Your task to perform on an android device: Open maps Image 0: 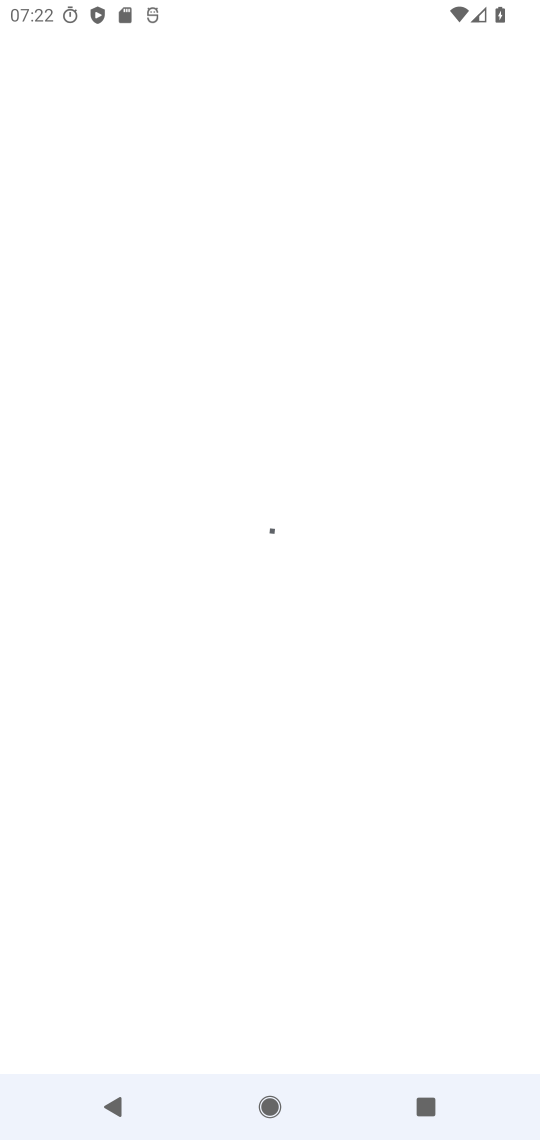
Step 0: press home button
Your task to perform on an android device: Open maps Image 1: 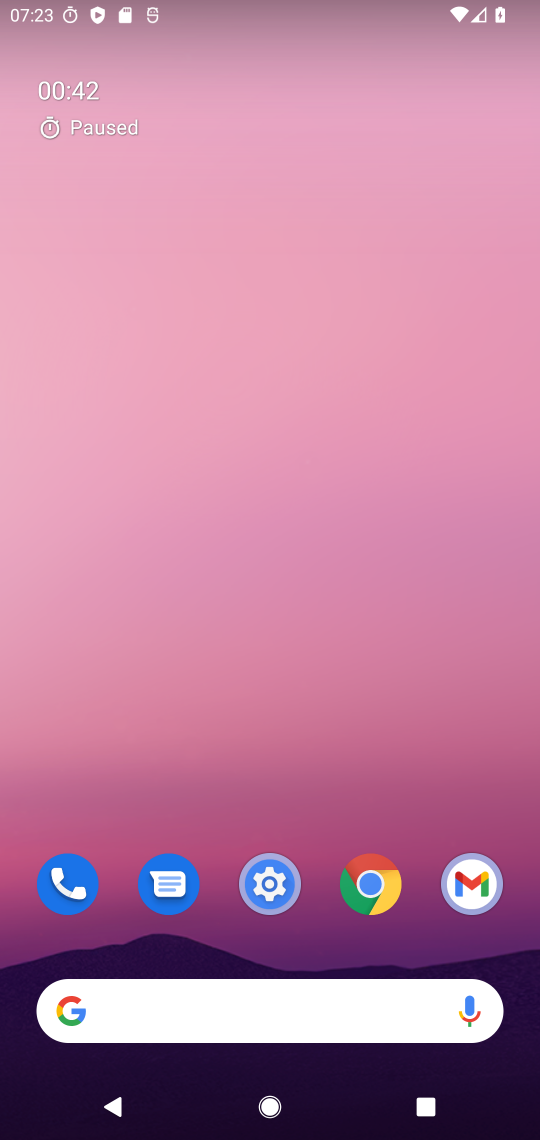
Step 1: drag from (372, 754) to (351, 5)
Your task to perform on an android device: Open maps Image 2: 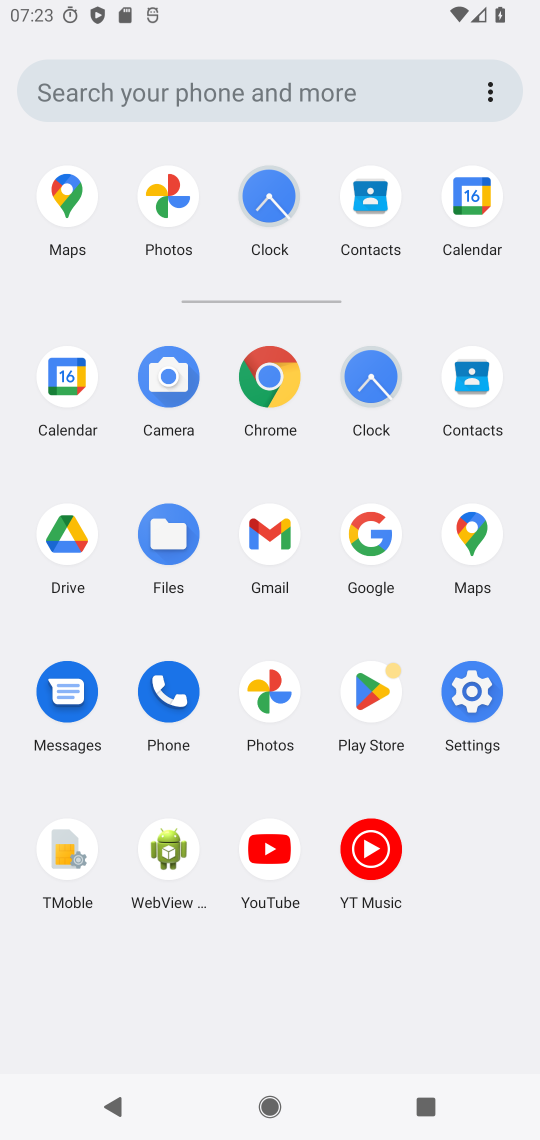
Step 2: click (478, 515)
Your task to perform on an android device: Open maps Image 3: 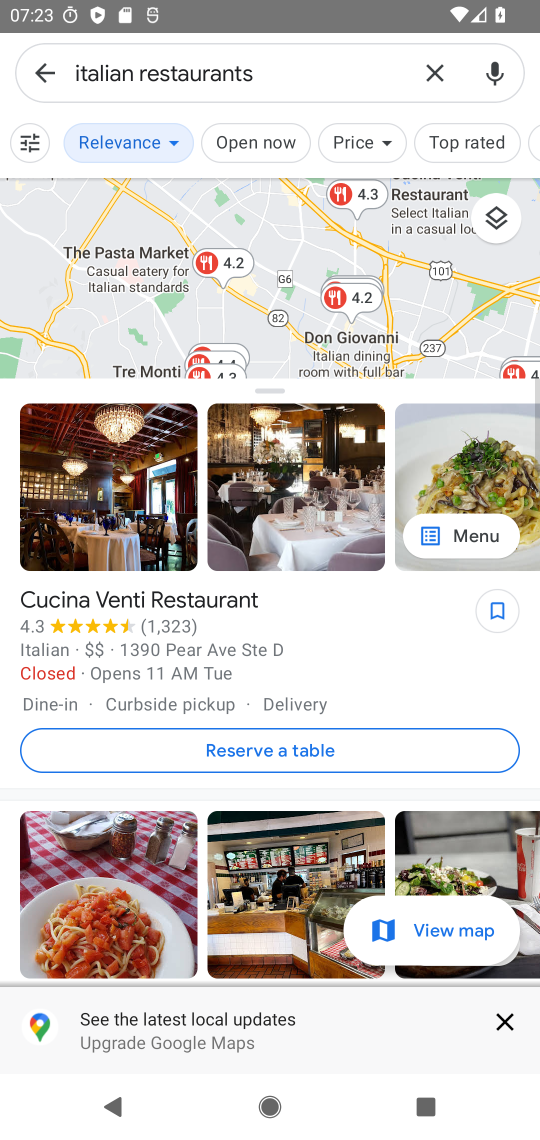
Step 3: click (433, 67)
Your task to perform on an android device: Open maps Image 4: 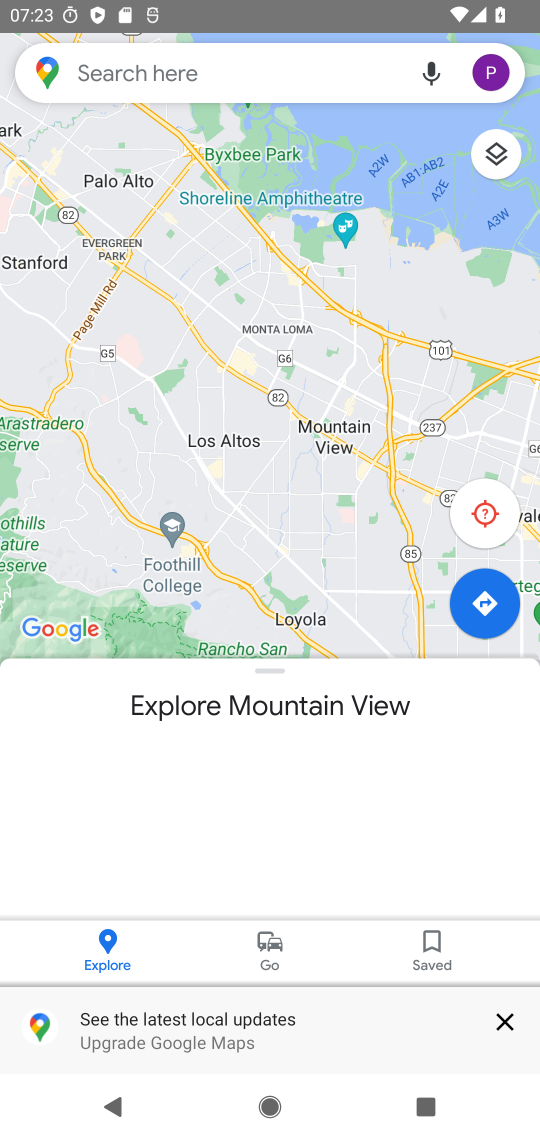
Step 4: task complete